Your task to perform on an android device: Go to sound settings Image 0: 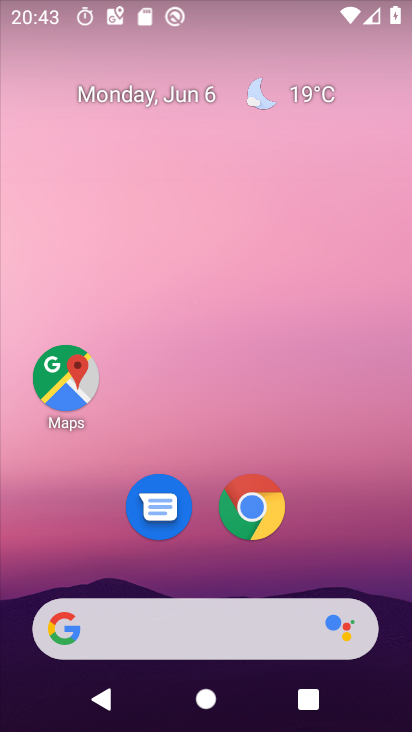
Step 0: press home button
Your task to perform on an android device: Go to sound settings Image 1: 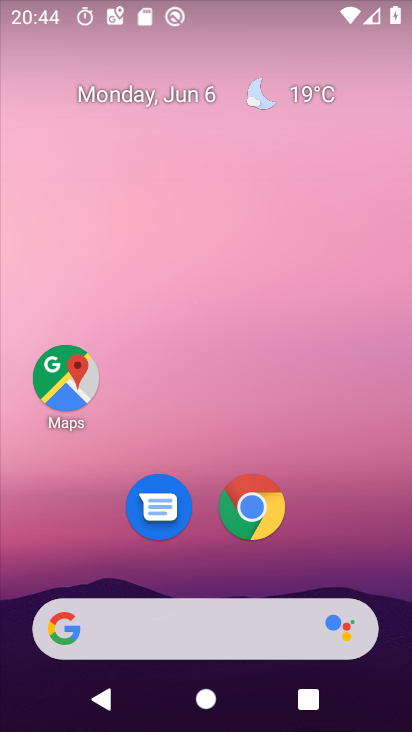
Step 1: drag from (357, 545) to (327, 0)
Your task to perform on an android device: Go to sound settings Image 2: 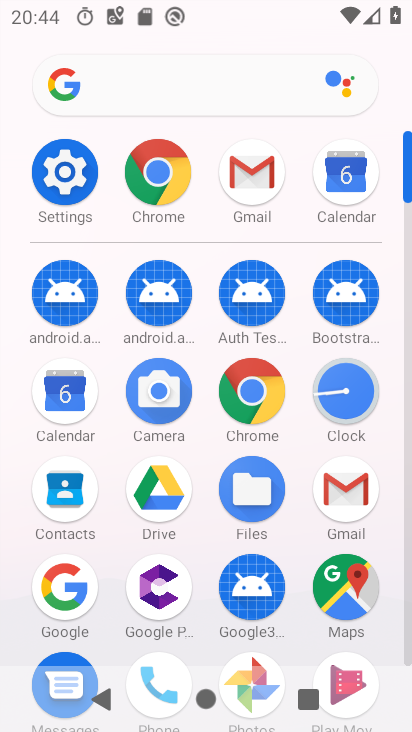
Step 2: click (50, 175)
Your task to perform on an android device: Go to sound settings Image 3: 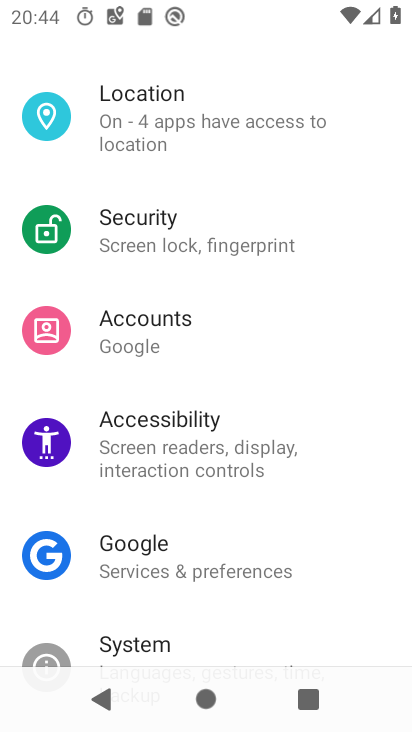
Step 3: drag from (229, 135) to (278, 613)
Your task to perform on an android device: Go to sound settings Image 4: 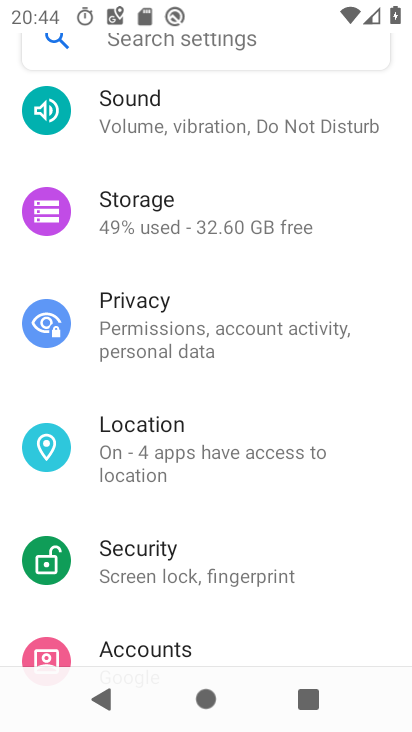
Step 4: drag from (247, 248) to (253, 701)
Your task to perform on an android device: Go to sound settings Image 5: 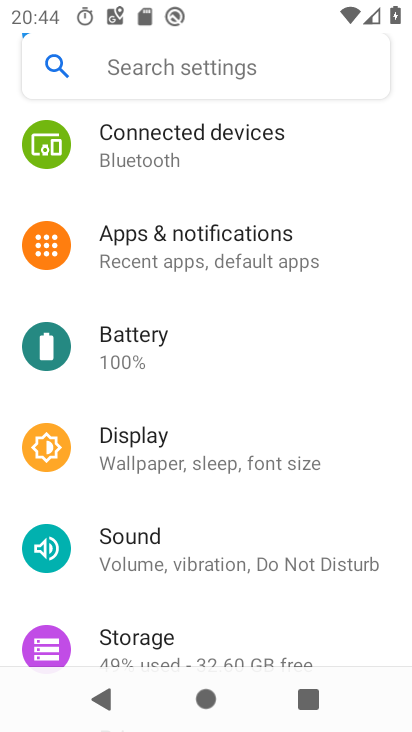
Step 5: click (123, 585)
Your task to perform on an android device: Go to sound settings Image 6: 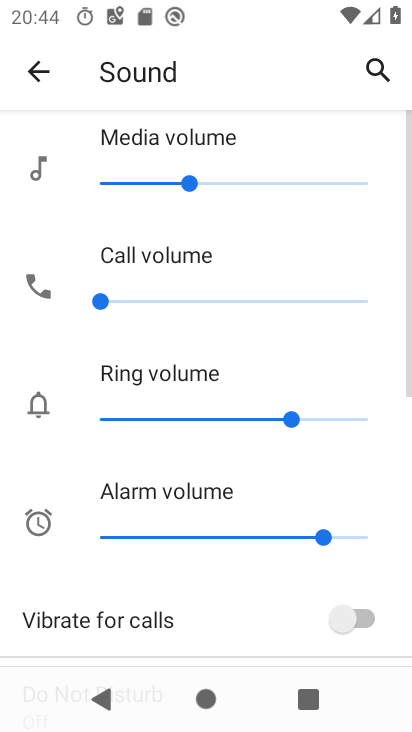
Step 6: task complete